Your task to perform on an android device: Go to calendar. Show me events next week Image 0: 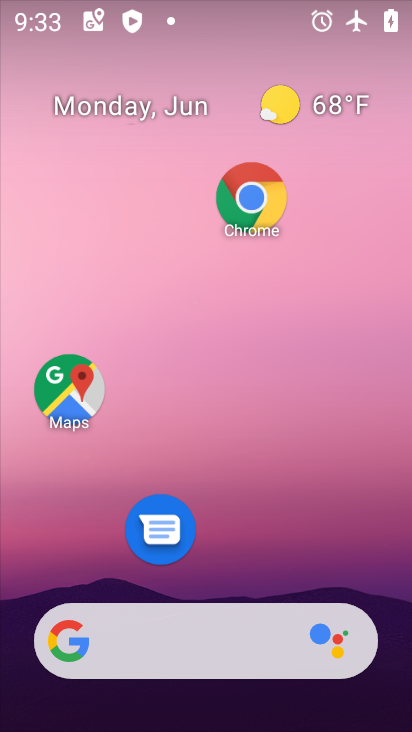
Step 0: drag from (216, 575) to (174, 142)
Your task to perform on an android device: Go to calendar. Show me events next week Image 1: 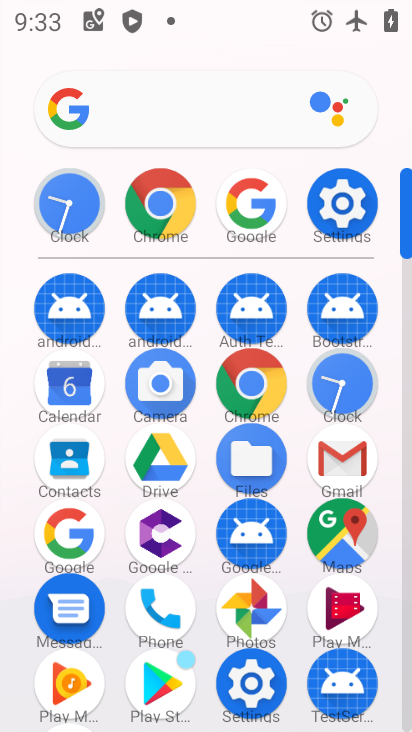
Step 1: click (74, 408)
Your task to perform on an android device: Go to calendar. Show me events next week Image 2: 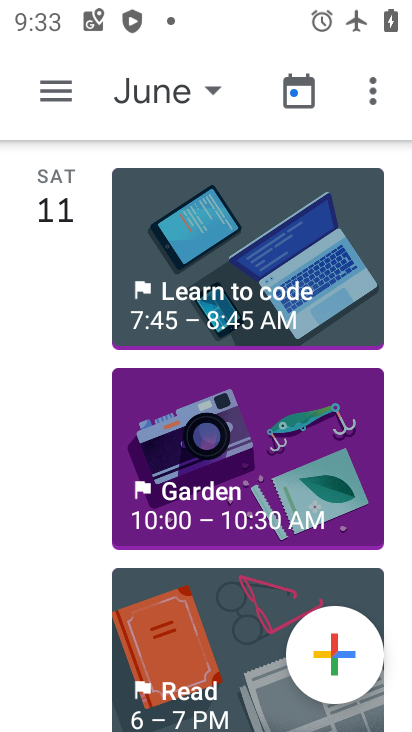
Step 2: click (190, 108)
Your task to perform on an android device: Go to calendar. Show me events next week Image 3: 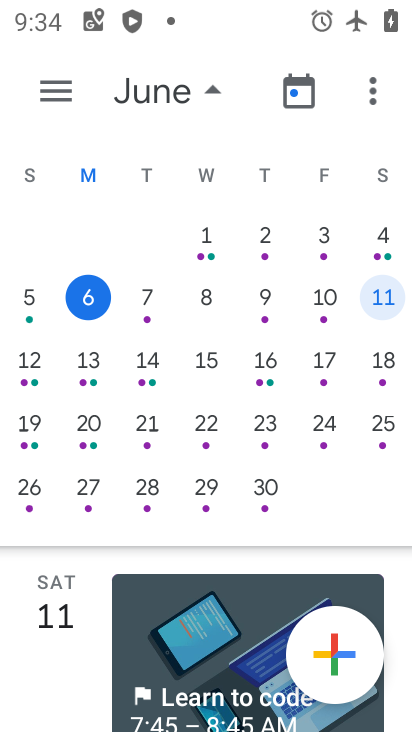
Step 3: click (91, 379)
Your task to perform on an android device: Go to calendar. Show me events next week Image 4: 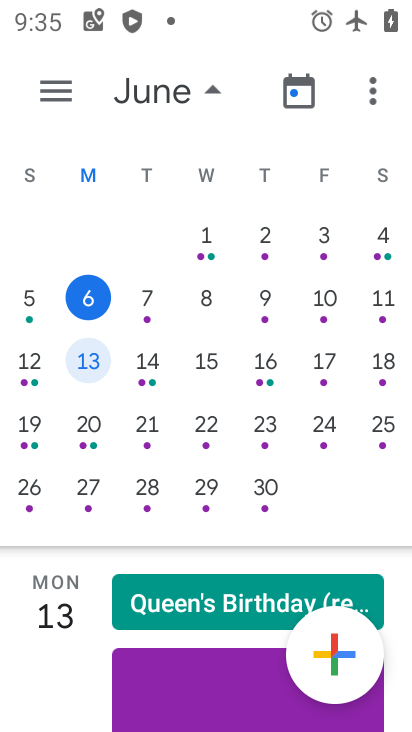
Step 4: task complete